Your task to perform on an android device: Open Reddit.com Image 0: 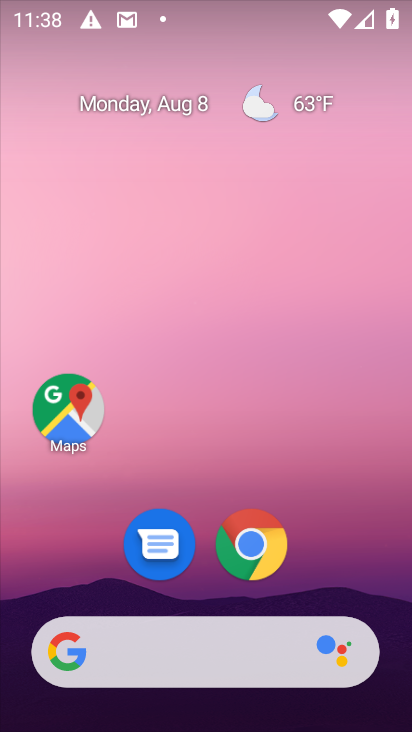
Step 0: click (251, 544)
Your task to perform on an android device: Open Reddit.com Image 1: 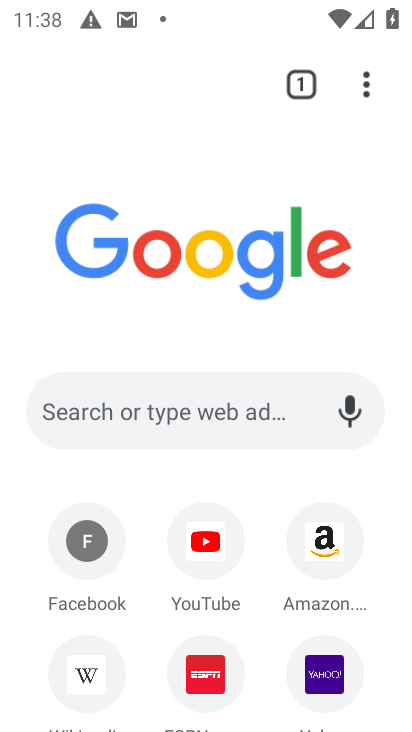
Step 1: click (202, 422)
Your task to perform on an android device: Open Reddit.com Image 2: 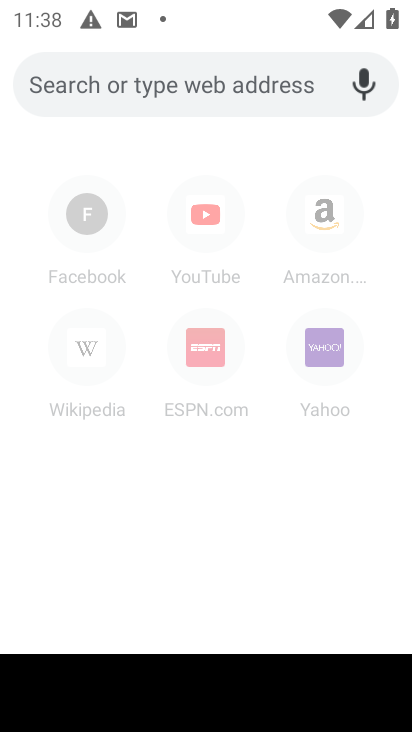
Step 2: type "Reddit.com"
Your task to perform on an android device: Open Reddit.com Image 3: 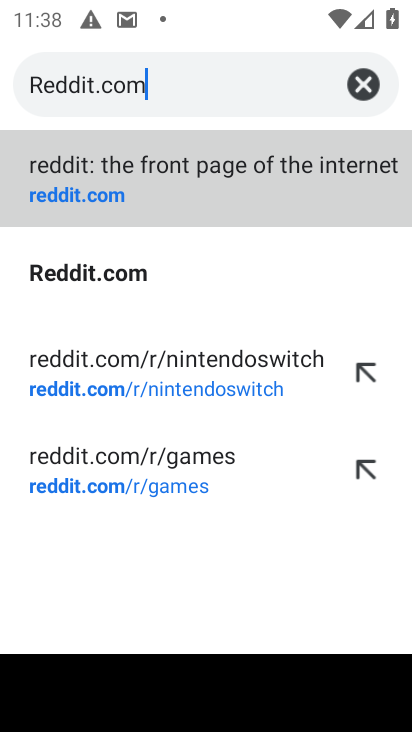
Step 3: click (135, 266)
Your task to perform on an android device: Open Reddit.com Image 4: 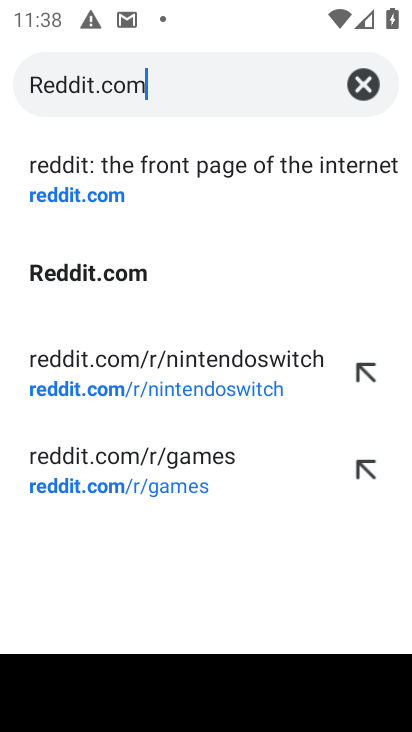
Step 4: click (110, 274)
Your task to perform on an android device: Open Reddit.com Image 5: 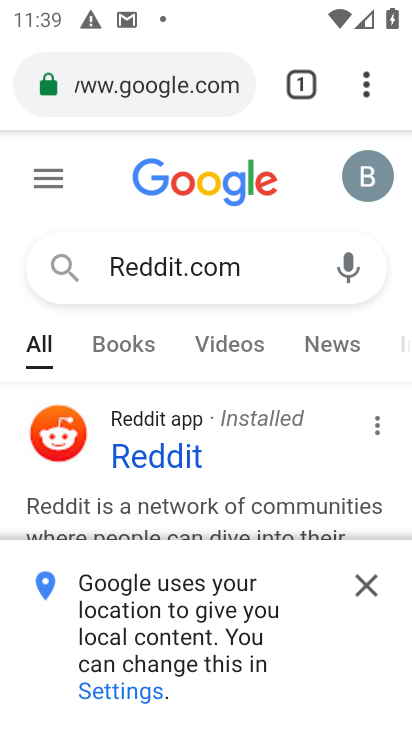
Step 5: click (365, 584)
Your task to perform on an android device: Open Reddit.com Image 6: 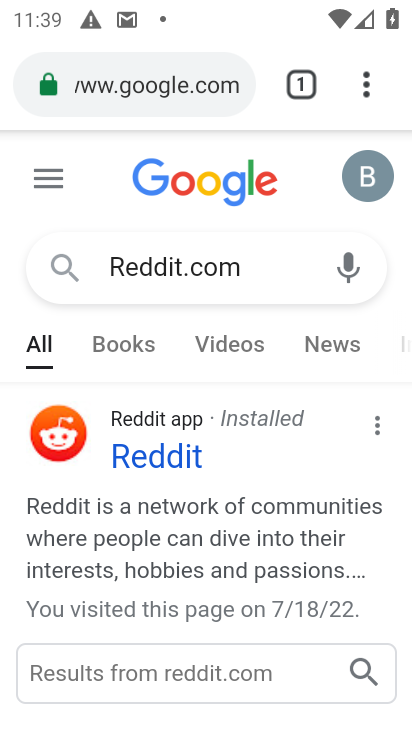
Step 6: click (156, 462)
Your task to perform on an android device: Open Reddit.com Image 7: 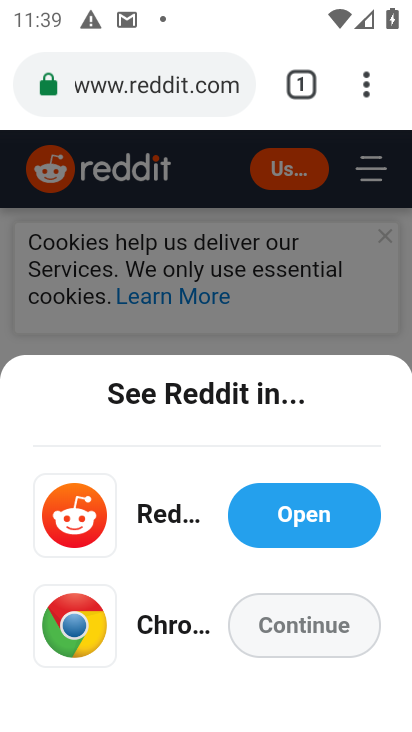
Step 7: click (300, 618)
Your task to perform on an android device: Open Reddit.com Image 8: 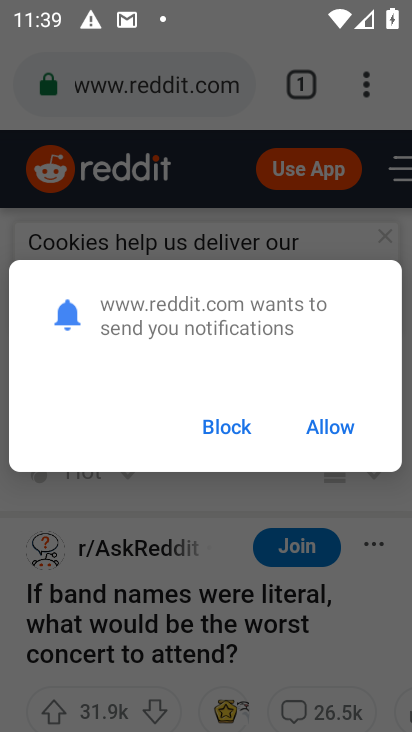
Step 8: click (316, 429)
Your task to perform on an android device: Open Reddit.com Image 9: 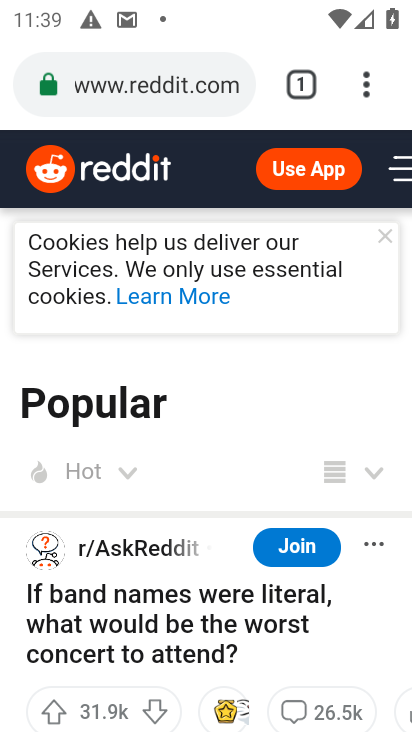
Step 9: task complete